Your task to perform on an android device: delete location history Image 0: 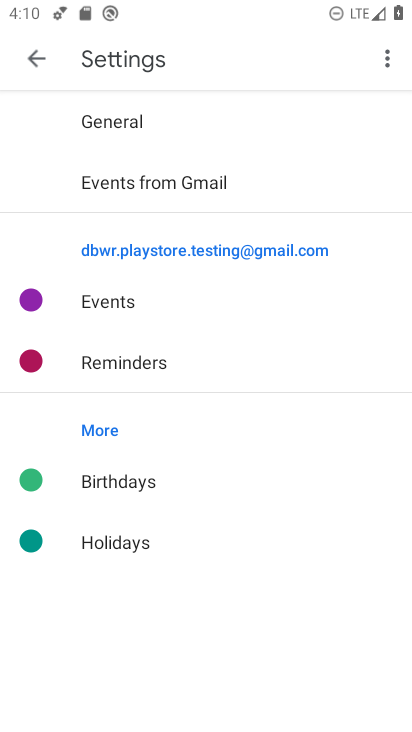
Step 0: press home button
Your task to perform on an android device: delete location history Image 1: 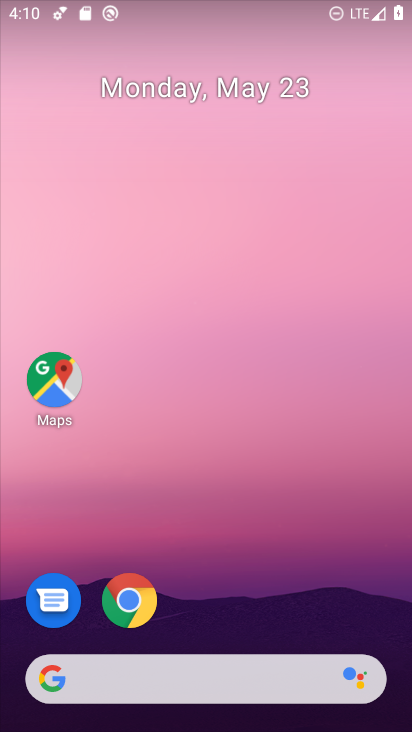
Step 1: click (43, 383)
Your task to perform on an android device: delete location history Image 2: 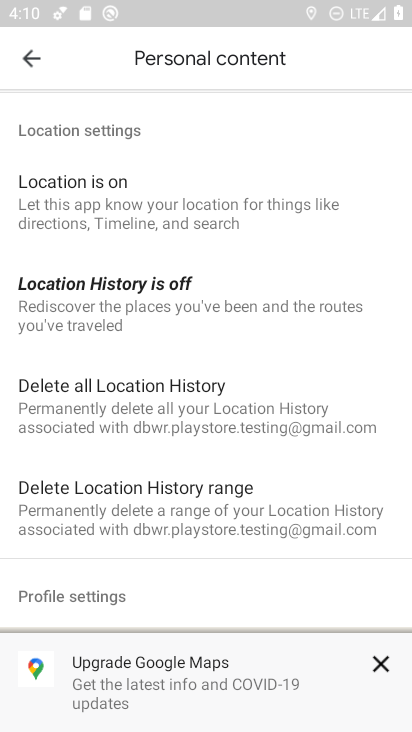
Step 2: click (132, 411)
Your task to perform on an android device: delete location history Image 3: 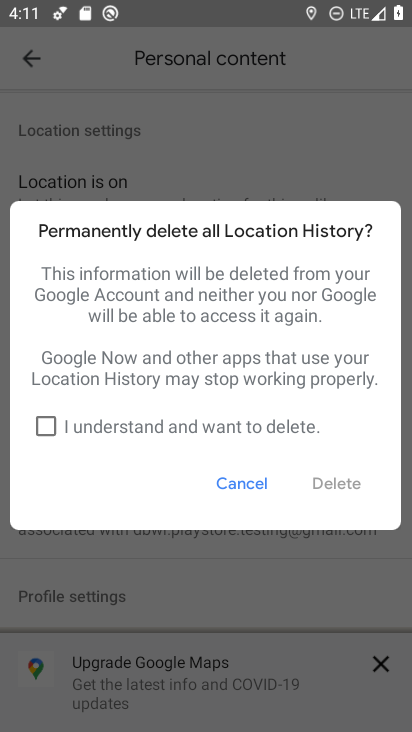
Step 3: click (55, 422)
Your task to perform on an android device: delete location history Image 4: 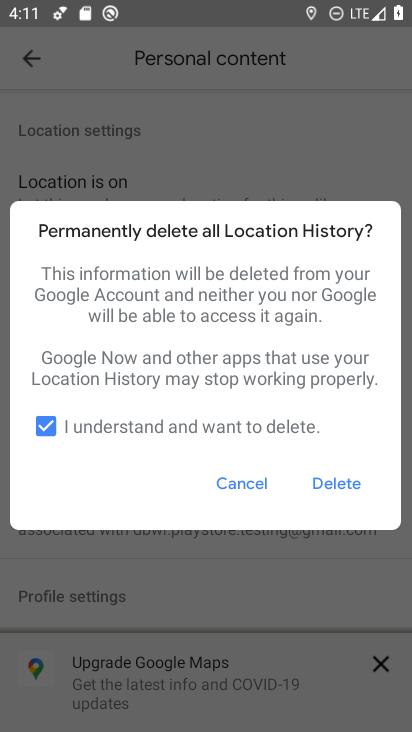
Step 4: click (355, 484)
Your task to perform on an android device: delete location history Image 5: 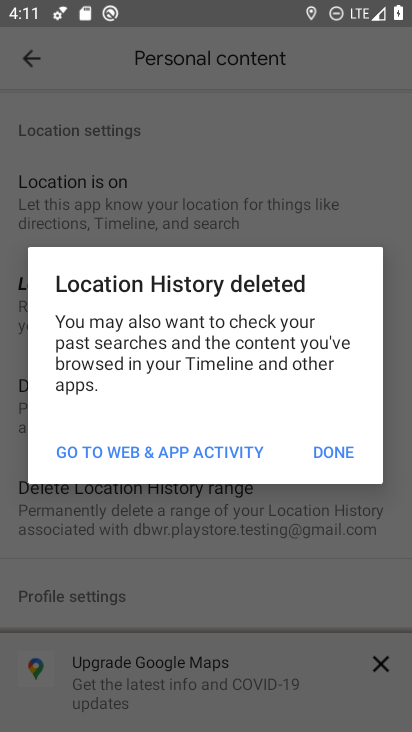
Step 5: click (320, 451)
Your task to perform on an android device: delete location history Image 6: 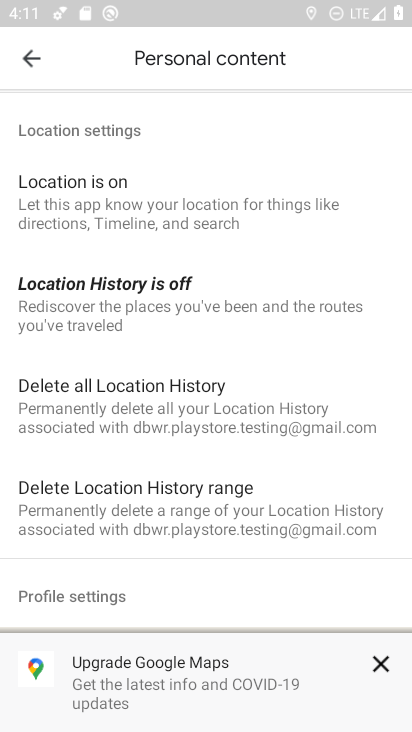
Step 6: task complete